Your task to perform on an android device: Open Chrome and go to settings Image 0: 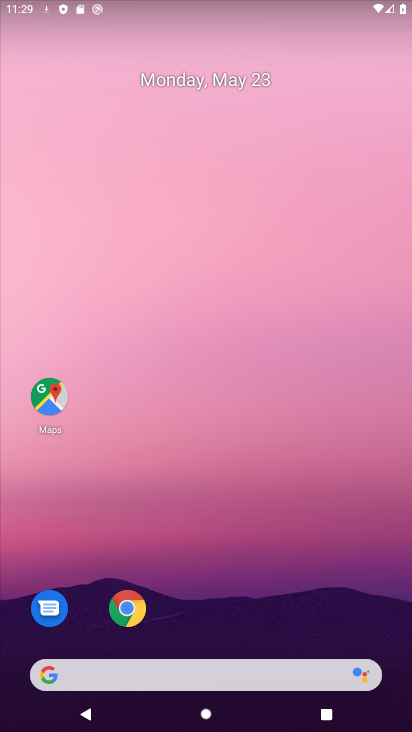
Step 0: click (126, 610)
Your task to perform on an android device: Open Chrome and go to settings Image 1: 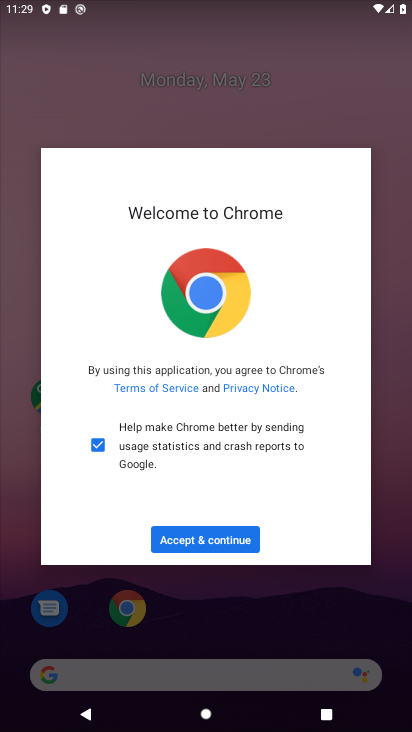
Step 1: click (201, 536)
Your task to perform on an android device: Open Chrome and go to settings Image 2: 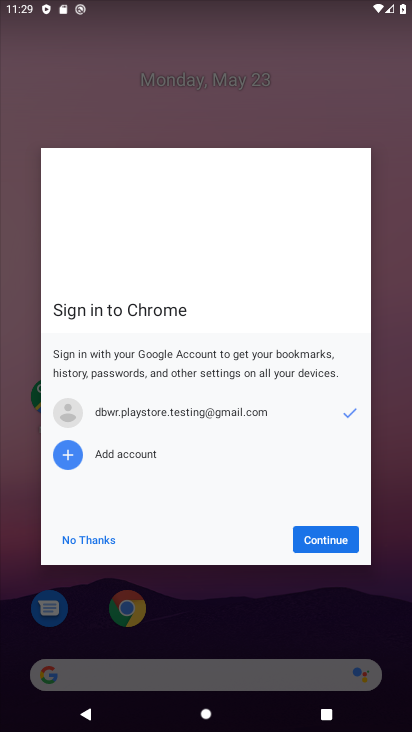
Step 2: click (329, 535)
Your task to perform on an android device: Open Chrome and go to settings Image 3: 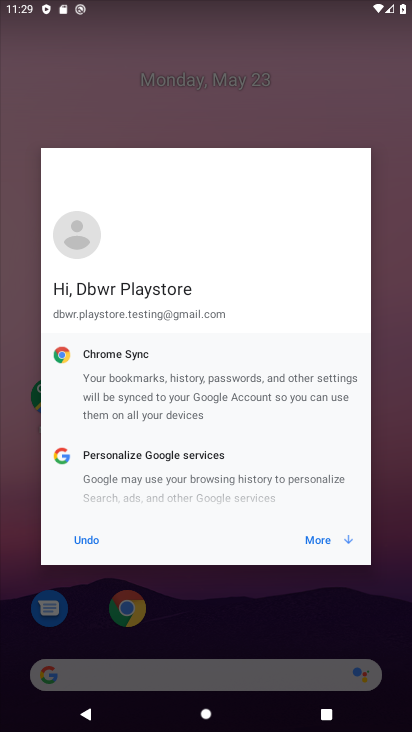
Step 3: click (320, 534)
Your task to perform on an android device: Open Chrome and go to settings Image 4: 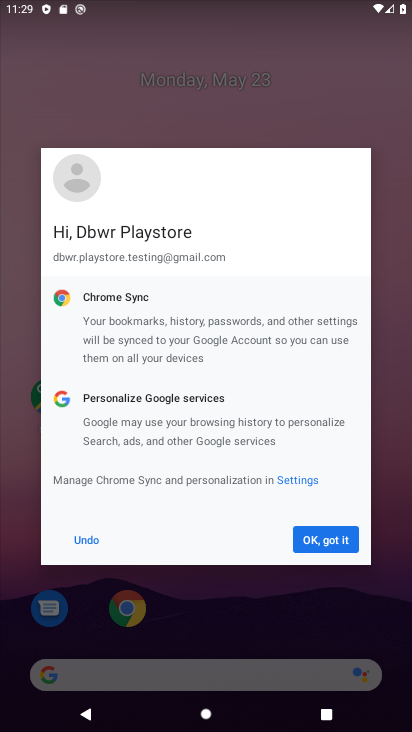
Step 4: click (325, 540)
Your task to perform on an android device: Open Chrome and go to settings Image 5: 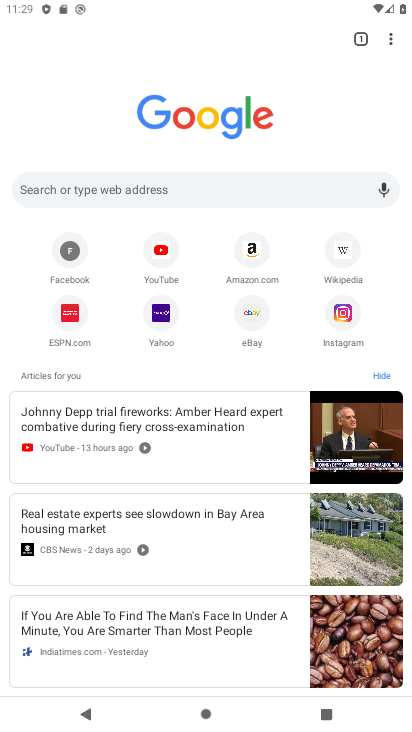
Step 5: click (390, 37)
Your task to perform on an android device: Open Chrome and go to settings Image 6: 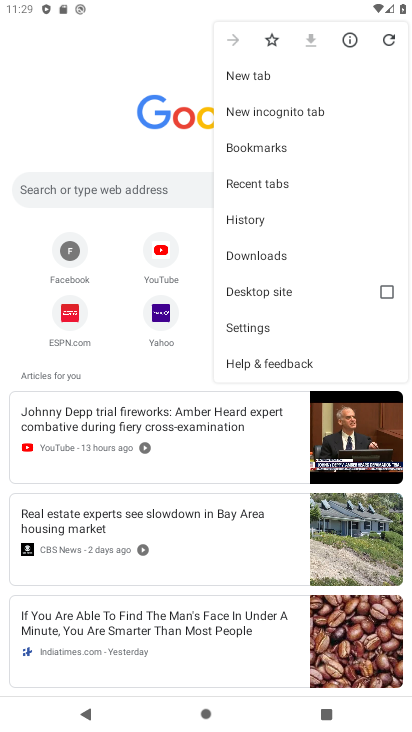
Step 6: click (269, 324)
Your task to perform on an android device: Open Chrome and go to settings Image 7: 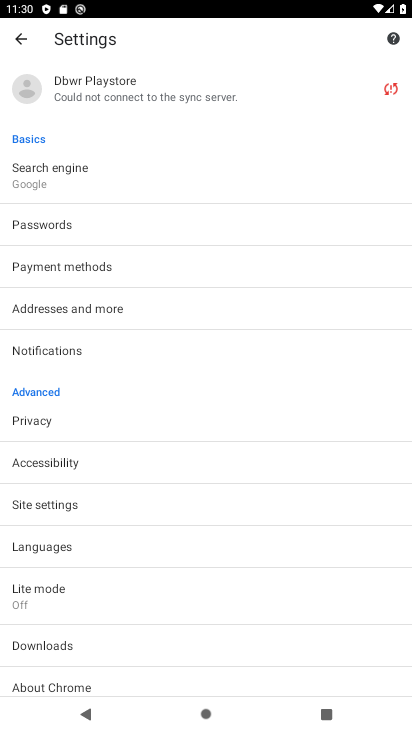
Step 7: task complete